Your task to perform on an android device: What's the news in Brunei? Image 0: 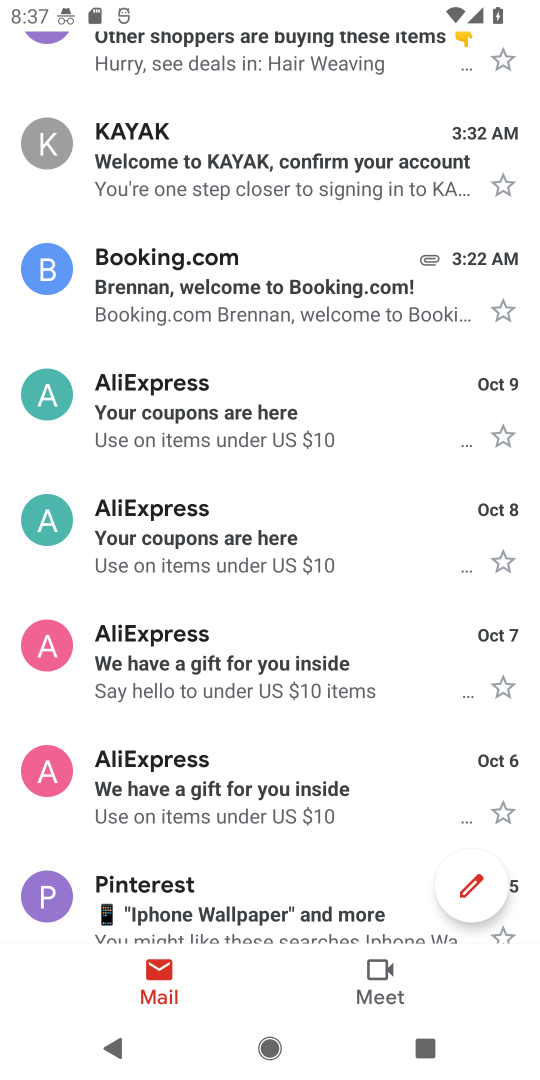
Step 0: press home button
Your task to perform on an android device: What's the news in Brunei? Image 1: 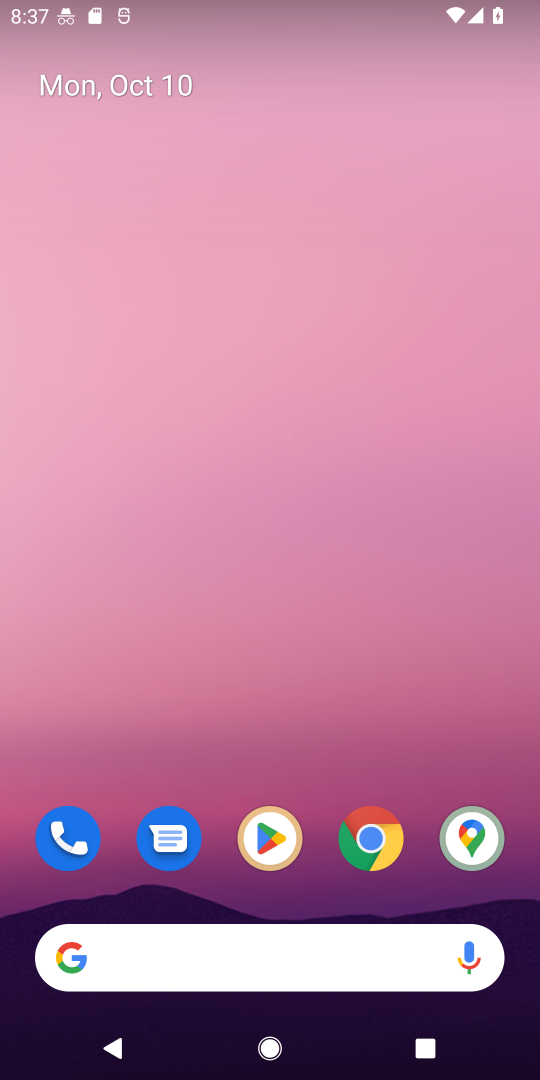
Step 1: click (373, 839)
Your task to perform on an android device: What's the news in Brunei? Image 2: 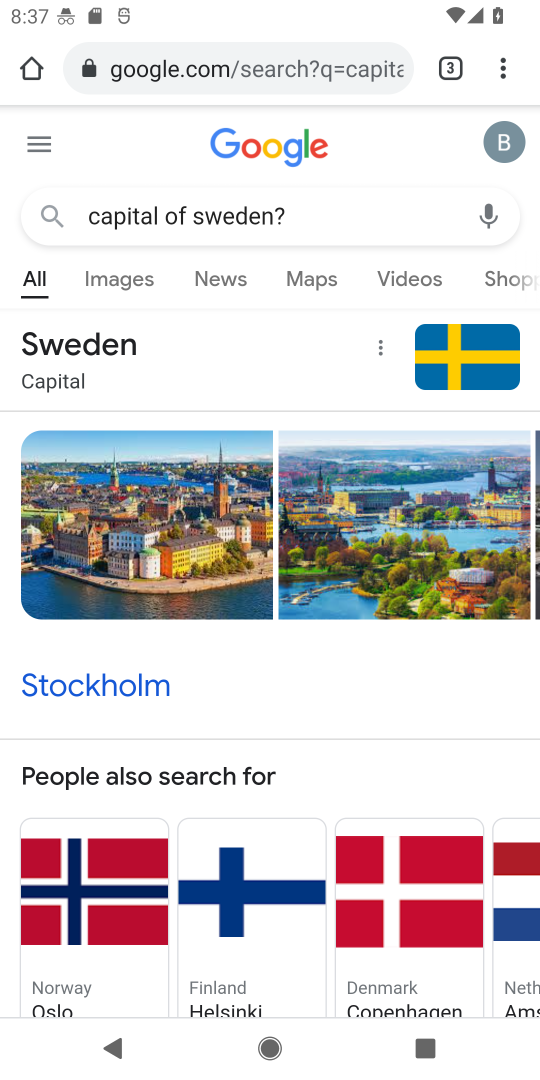
Step 2: click (204, 43)
Your task to perform on an android device: What's the news in Brunei? Image 3: 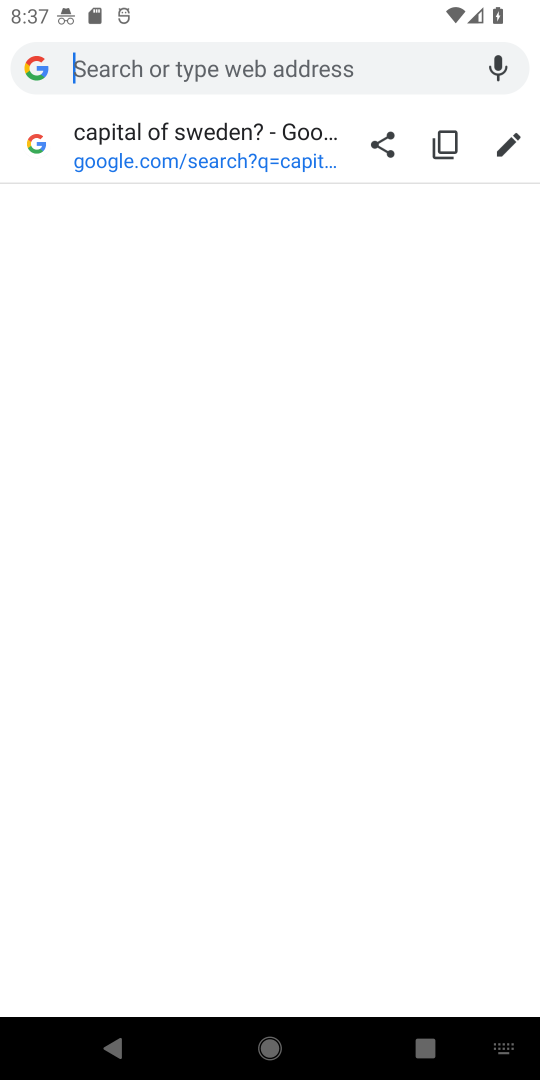
Step 3: type "news in Brunei?"
Your task to perform on an android device: What's the news in Brunei? Image 4: 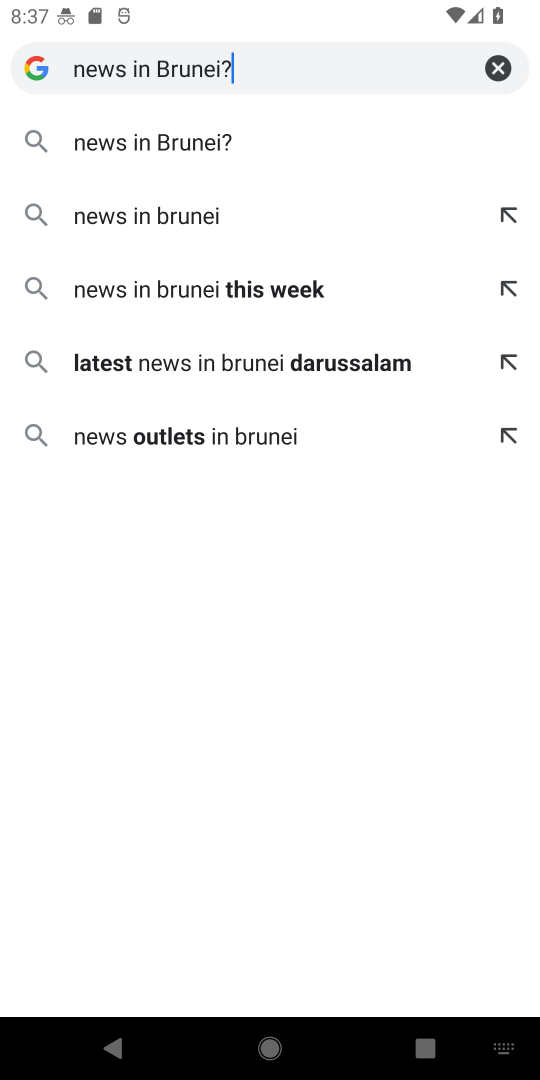
Step 4: click (140, 131)
Your task to perform on an android device: What's the news in Brunei? Image 5: 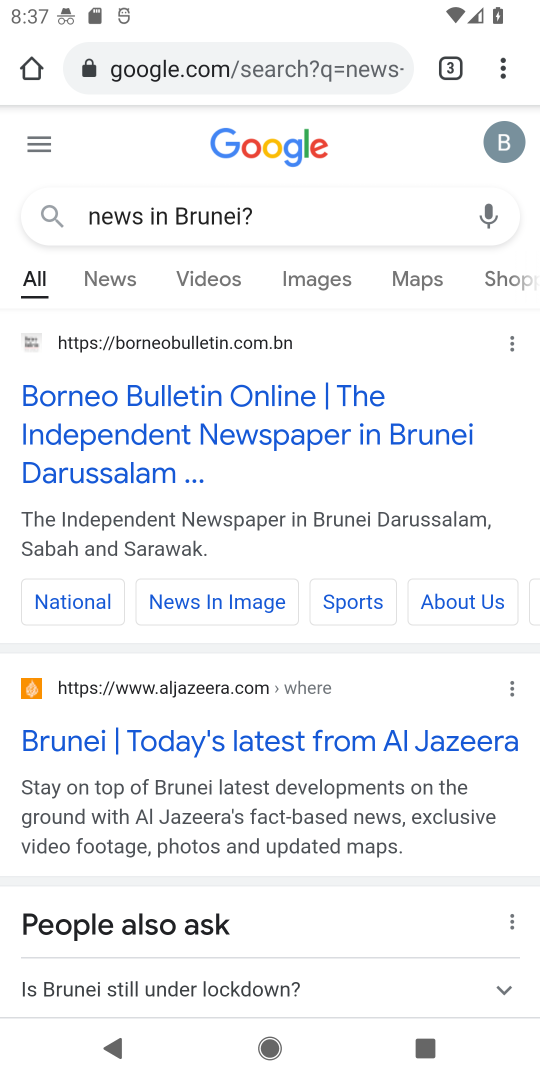
Step 5: click (68, 737)
Your task to perform on an android device: What's the news in Brunei? Image 6: 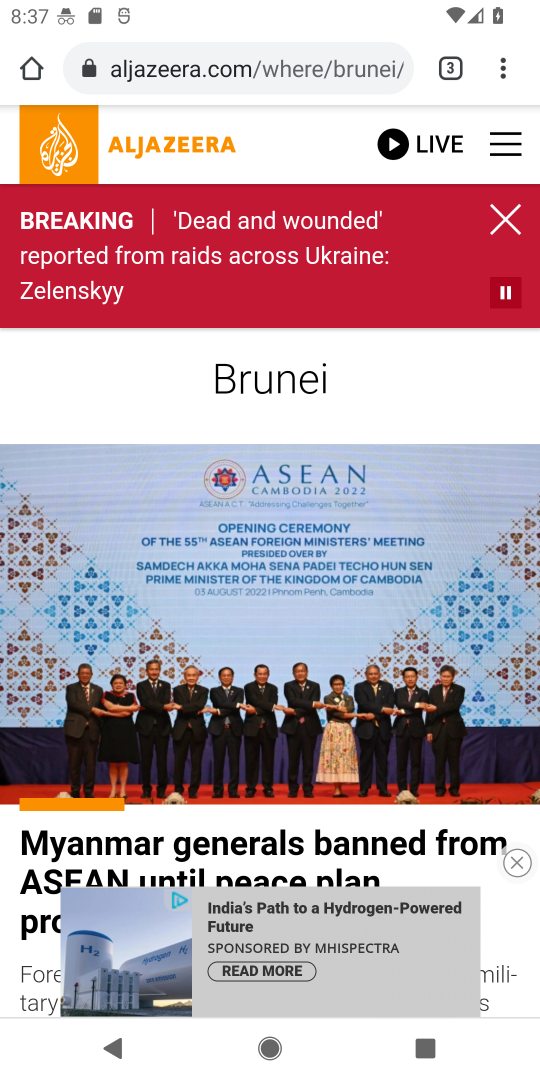
Step 6: drag from (259, 832) to (294, 304)
Your task to perform on an android device: What's the news in Brunei? Image 7: 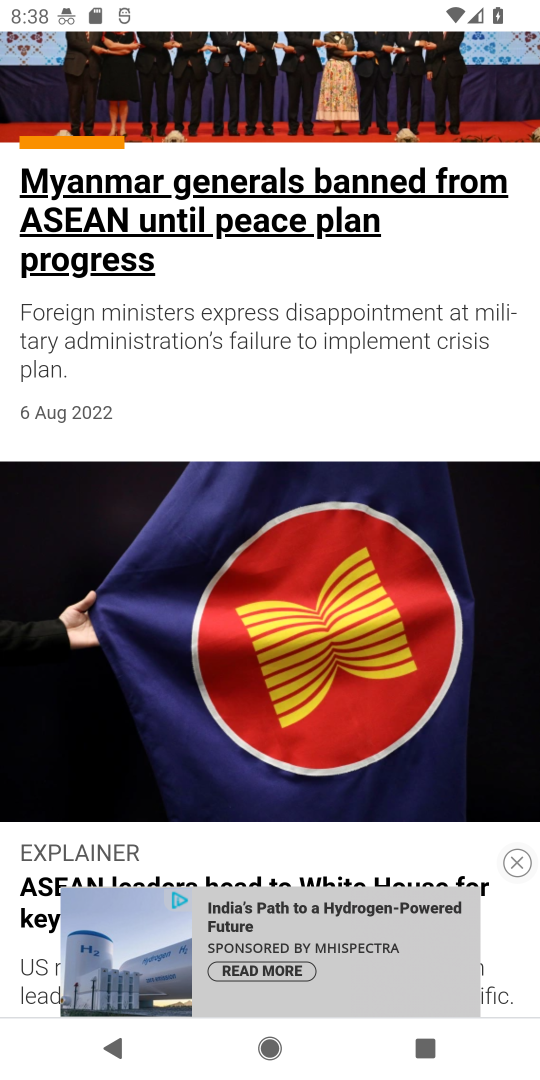
Step 7: click (515, 862)
Your task to perform on an android device: What's the news in Brunei? Image 8: 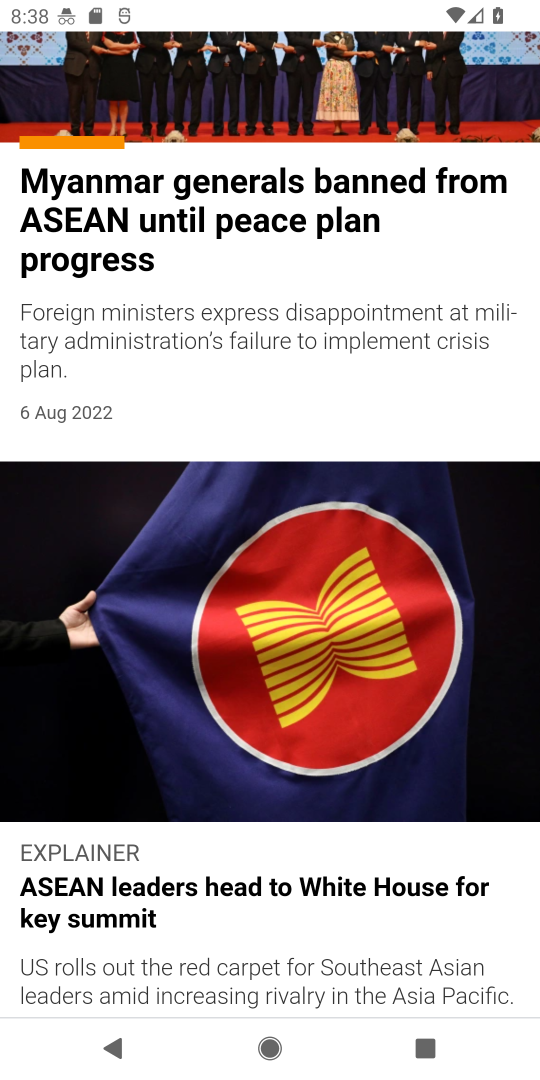
Step 8: task complete